Your task to perform on an android device: Search for sushi restaurants on Maps Image 0: 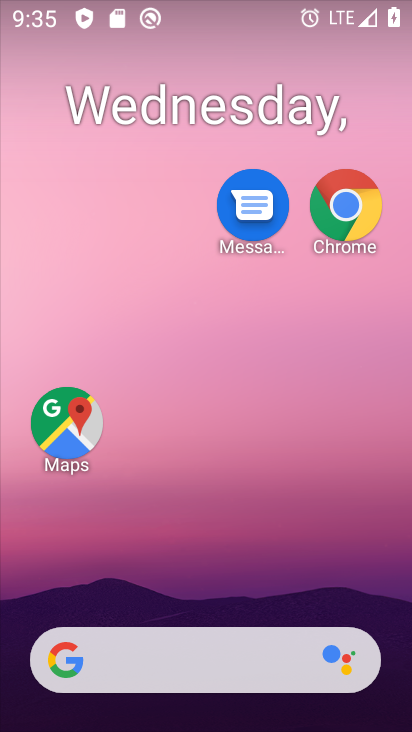
Step 0: drag from (236, 574) to (287, 86)
Your task to perform on an android device: Search for sushi restaurants on Maps Image 1: 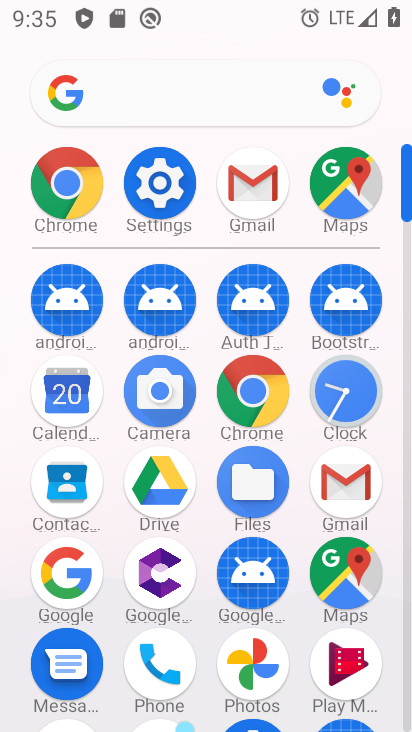
Step 1: click (343, 571)
Your task to perform on an android device: Search for sushi restaurants on Maps Image 2: 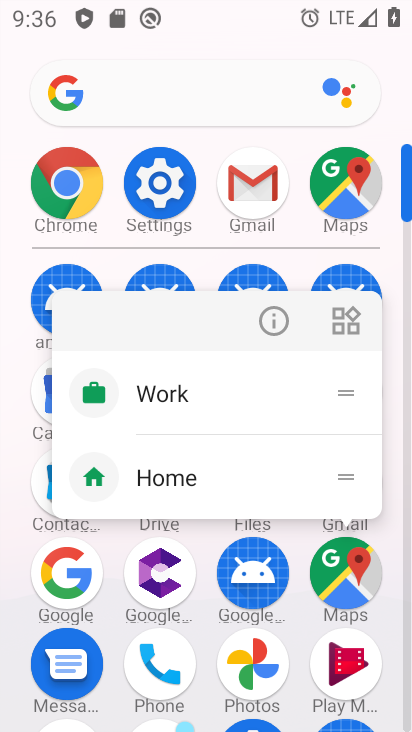
Step 2: click (278, 320)
Your task to perform on an android device: Search for sushi restaurants on Maps Image 3: 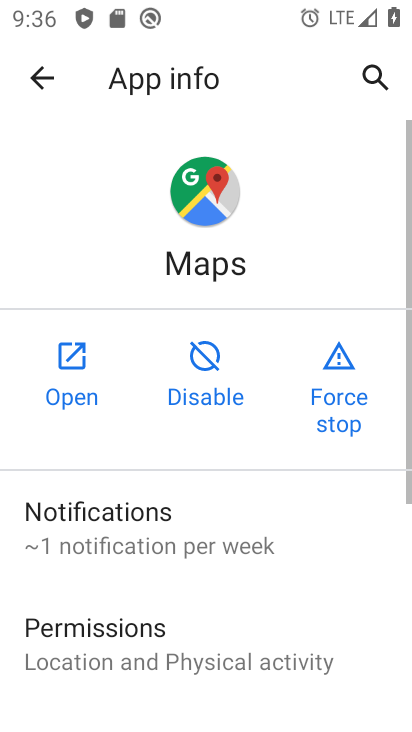
Step 3: click (77, 379)
Your task to perform on an android device: Search for sushi restaurants on Maps Image 4: 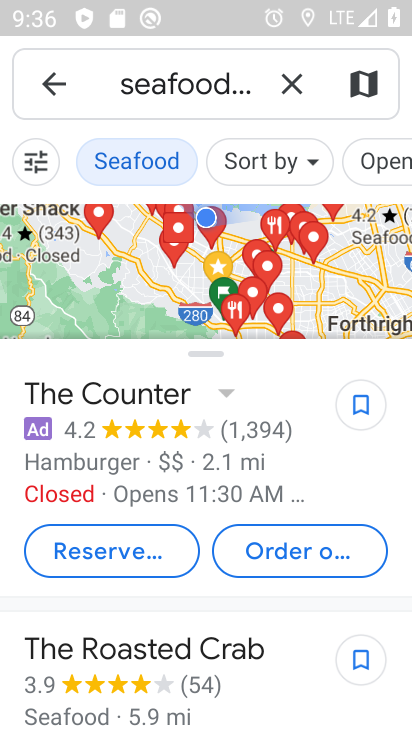
Step 4: click (286, 85)
Your task to perform on an android device: Search for sushi restaurants on Maps Image 5: 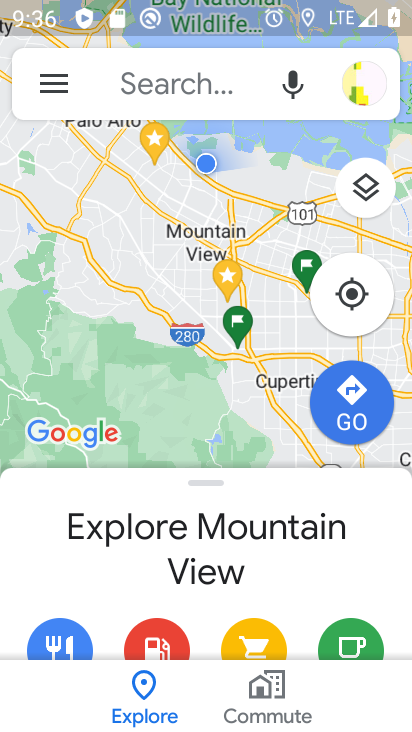
Step 5: click (166, 68)
Your task to perform on an android device: Search for sushi restaurants on Maps Image 6: 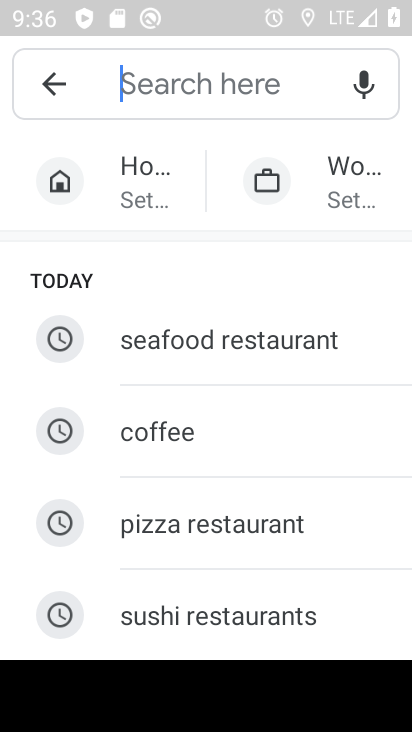
Step 6: drag from (216, 530) to (289, 238)
Your task to perform on an android device: Search for sushi restaurants on Maps Image 7: 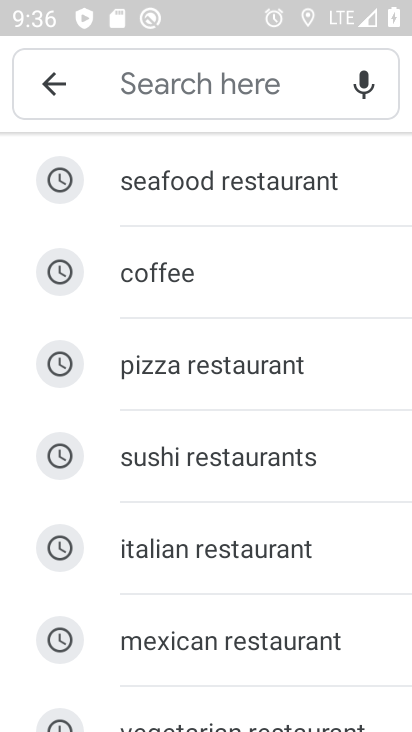
Step 7: click (196, 474)
Your task to perform on an android device: Search for sushi restaurants on Maps Image 8: 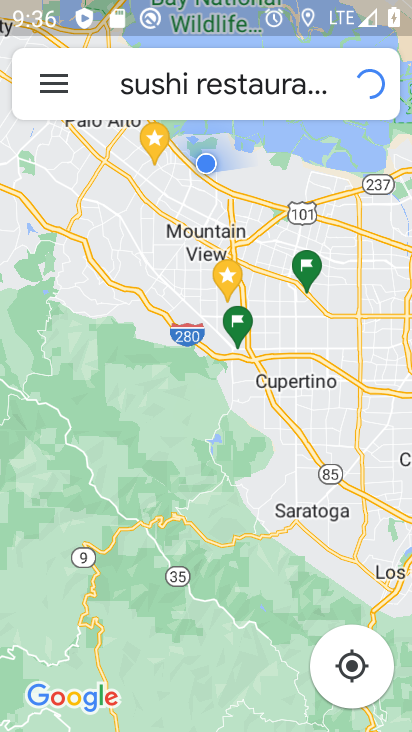
Step 8: task complete